Your task to perform on an android device: check data usage Image 0: 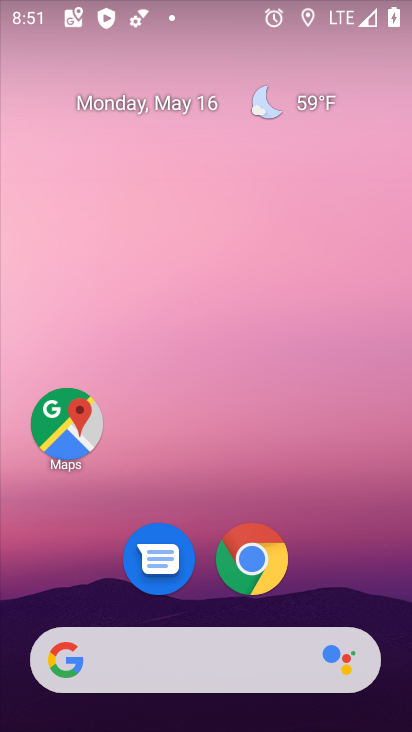
Step 0: drag from (372, 549) to (327, 94)
Your task to perform on an android device: check data usage Image 1: 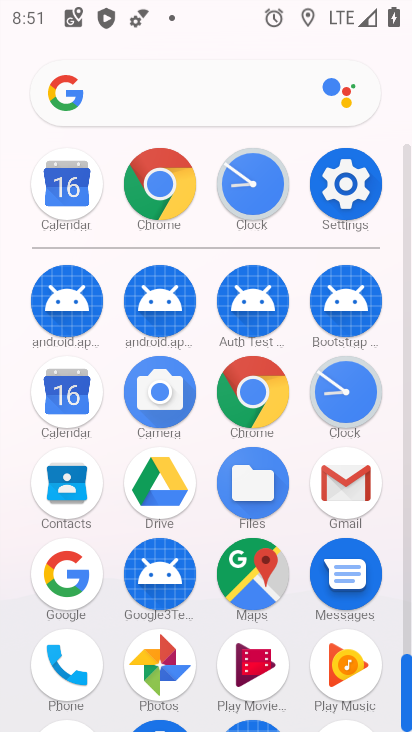
Step 1: click (345, 187)
Your task to perform on an android device: check data usage Image 2: 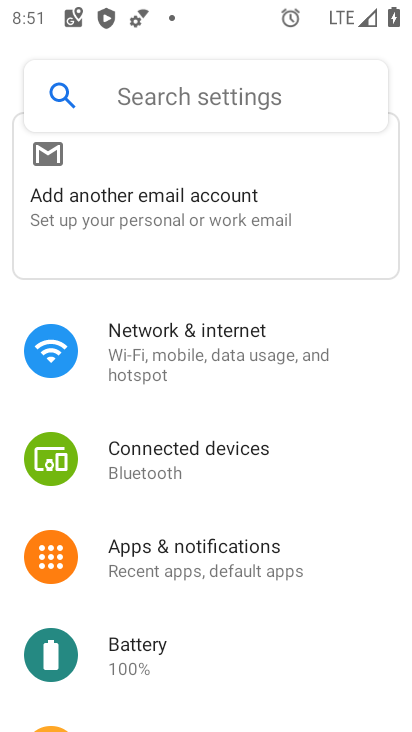
Step 2: click (233, 357)
Your task to perform on an android device: check data usage Image 3: 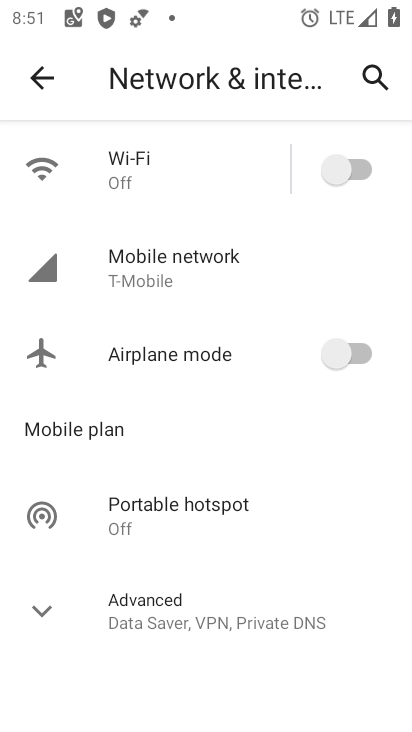
Step 3: click (178, 283)
Your task to perform on an android device: check data usage Image 4: 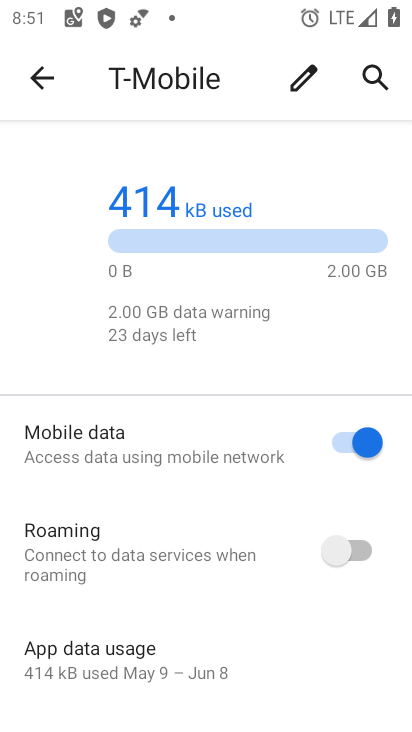
Step 4: task complete